Your task to perform on an android device: open wifi settings Image 0: 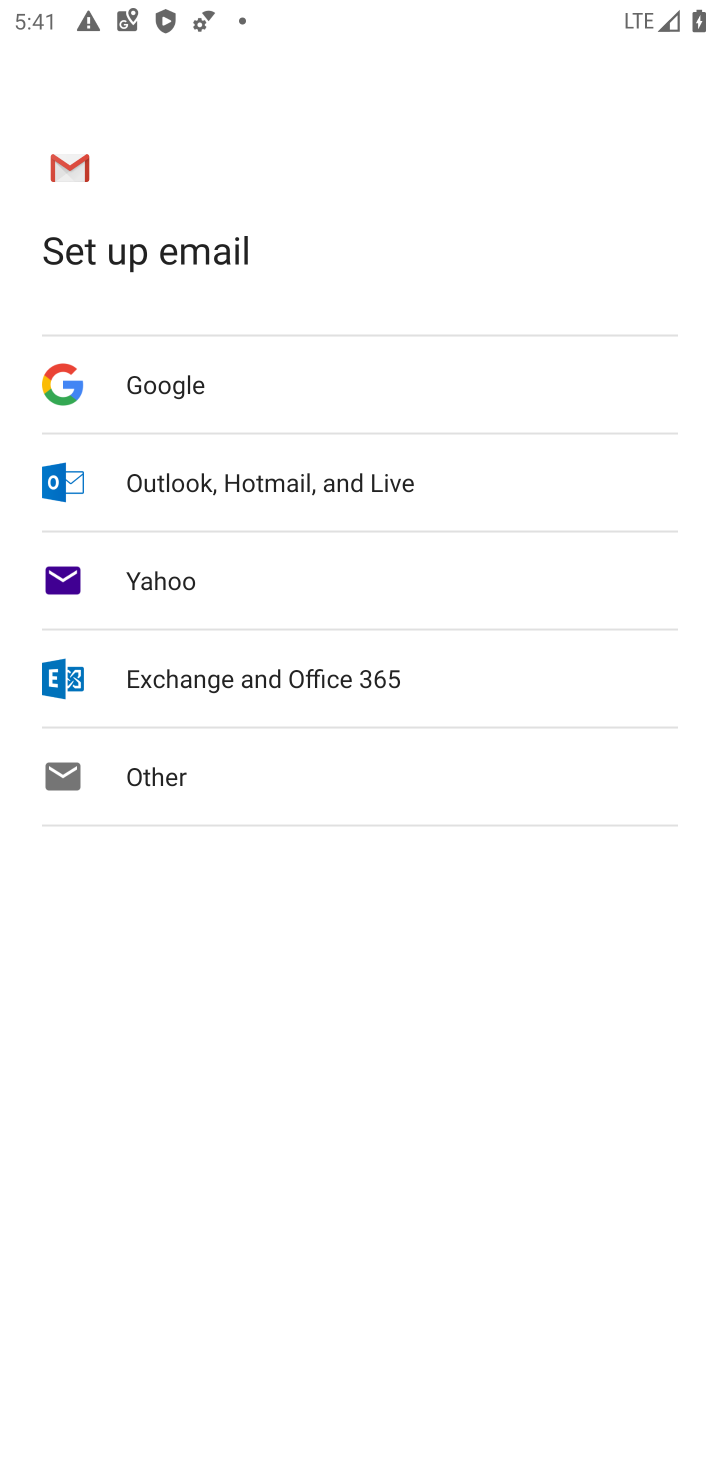
Step 0: press home button
Your task to perform on an android device: open wifi settings Image 1: 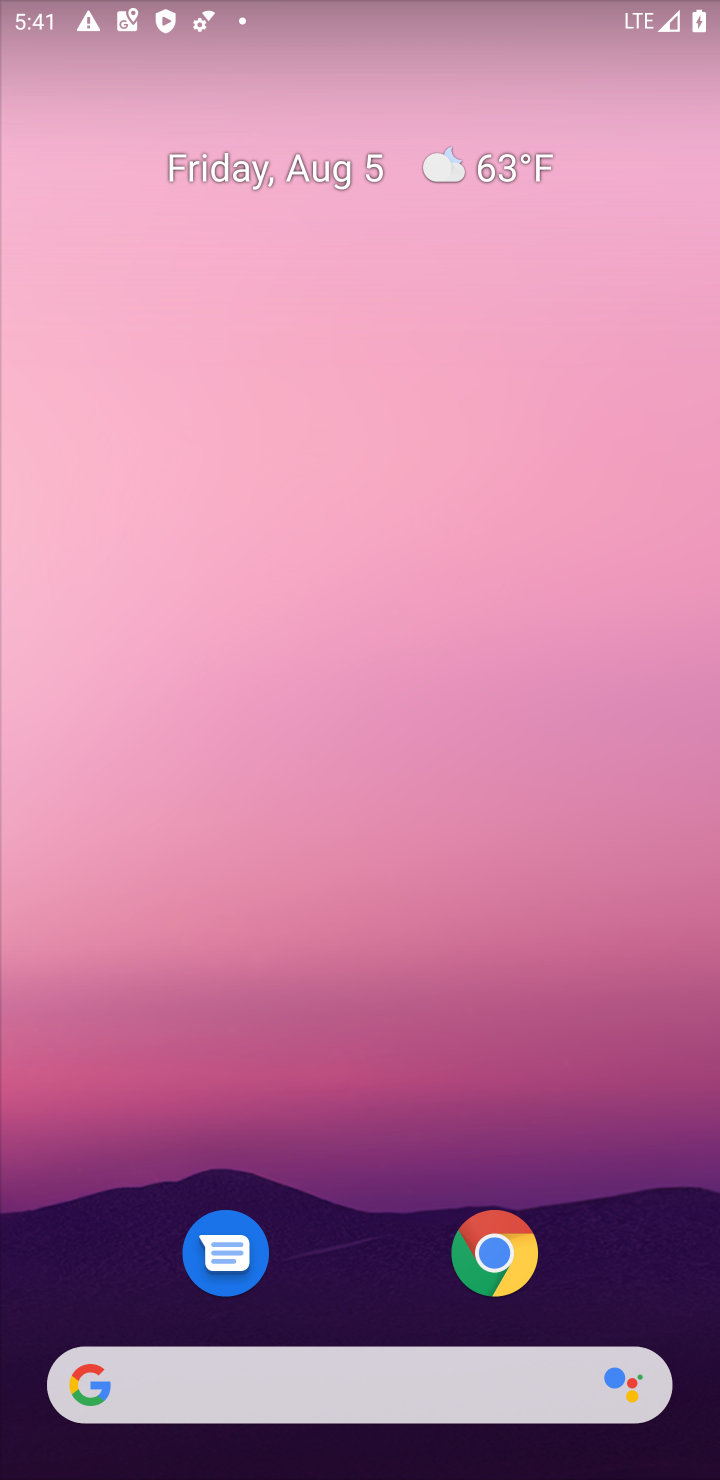
Step 1: drag from (387, 1117) to (325, 205)
Your task to perform on an android device: open wifi settings Image 2: 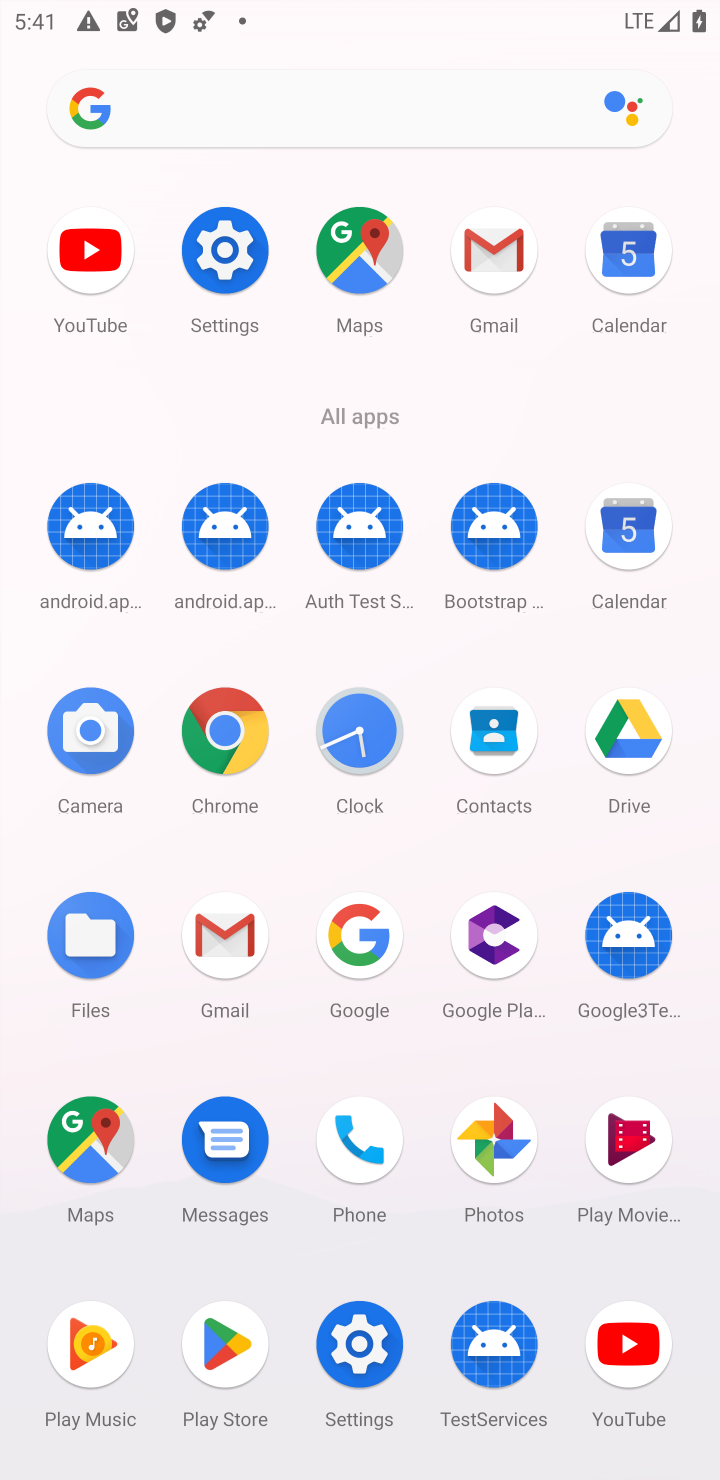
Step 2: click (216, 266)
Your task to perform on an android device: open wifi settings Image 3: 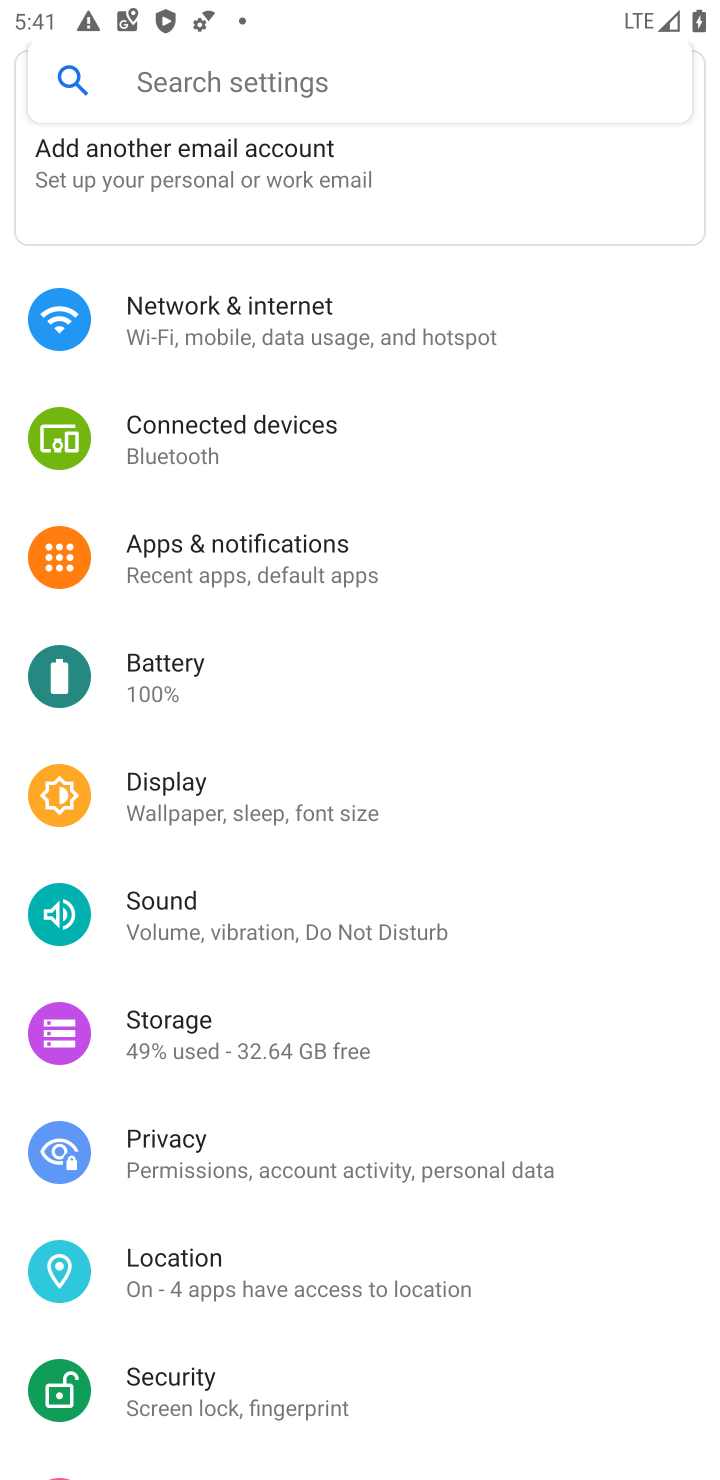
Step 3: click (253, 313)
Your task to perform on an android device: open wifi settings Image 4: 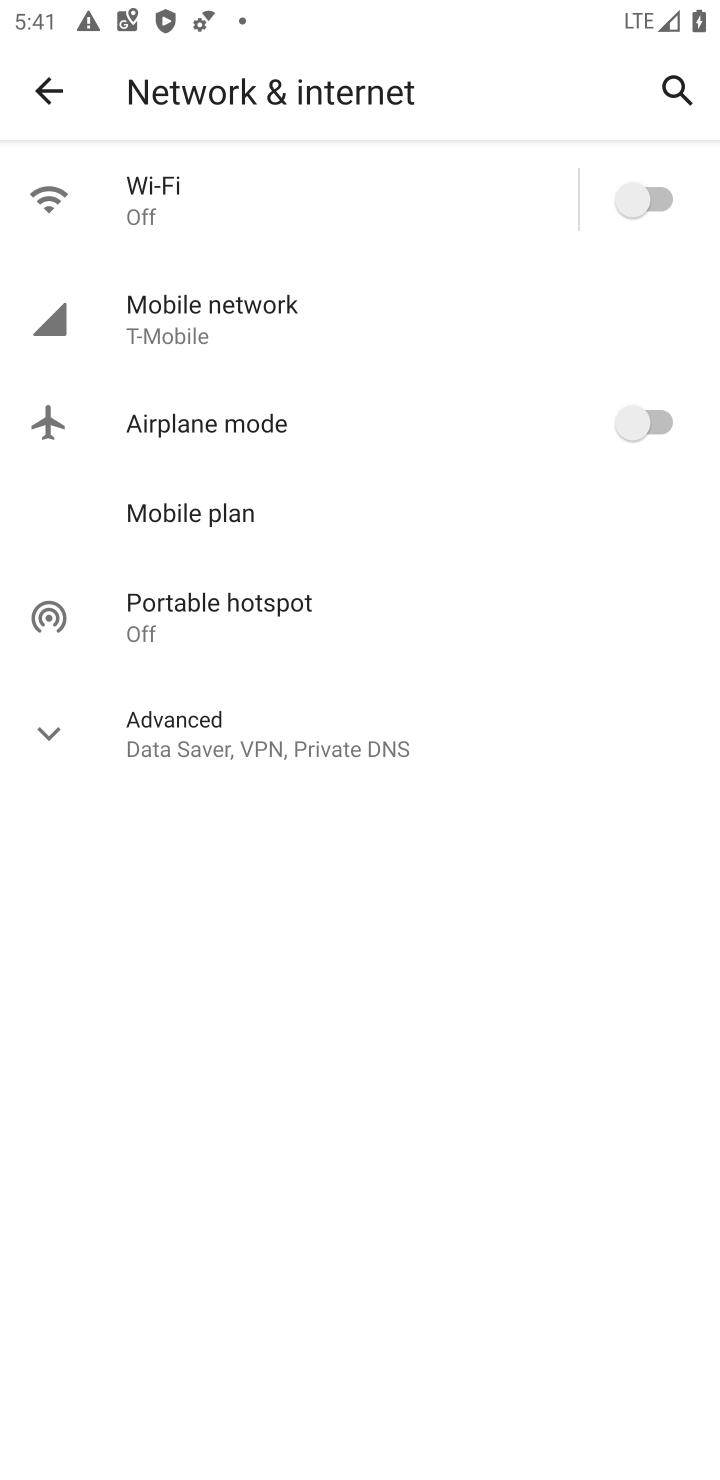
Step 4: click (81, 204)
Your task to perform on an android device: open wifi settings Image 5: 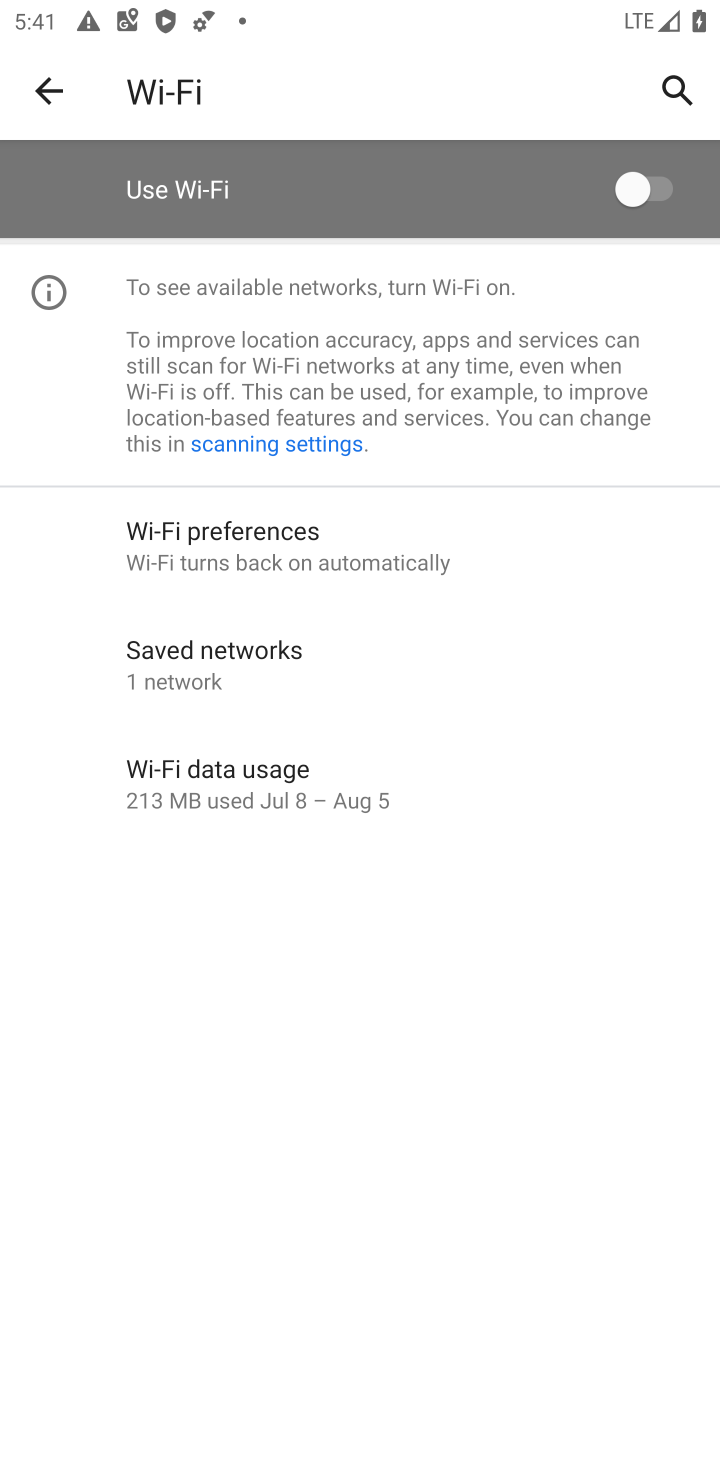
Step 5: task complete